Your task to perform on an android device: Open location settings Image 0: 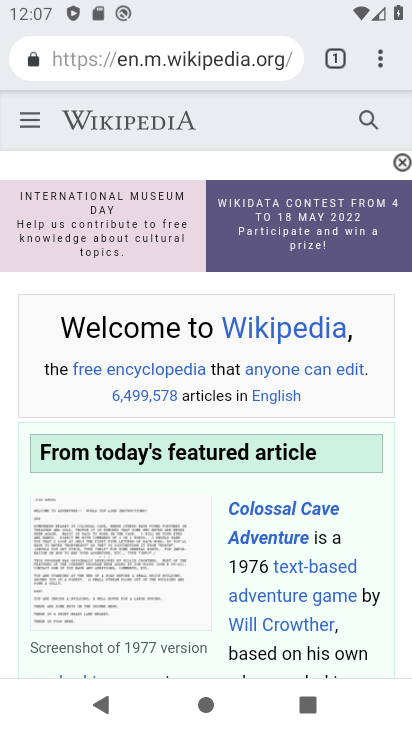
Step 0: press home button
Your task to perform on an android device: Open location settings Image 1: 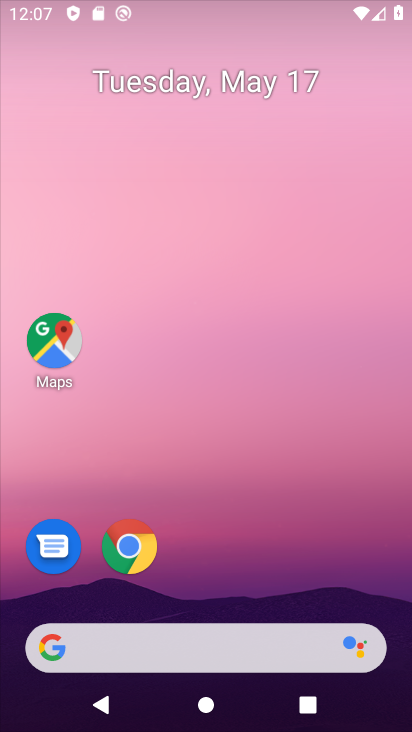
Step 1: drag from (295, 480) to (330, 14)
Your task to perform on an android device: Open location settings Image 2: 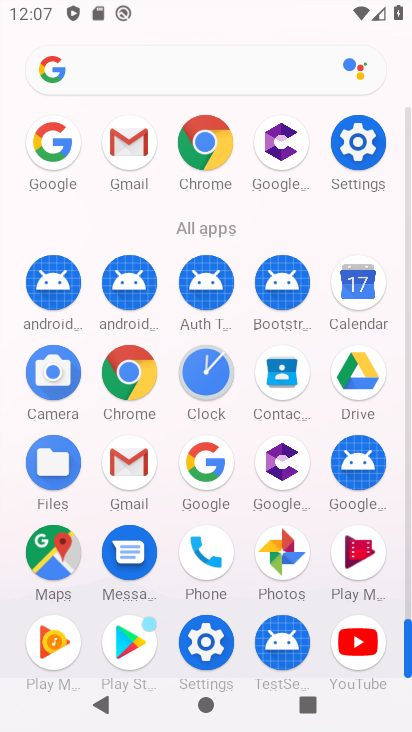
Step 2: click (352, 131)
Your task to perform on an android device: Open location settings Image 3: 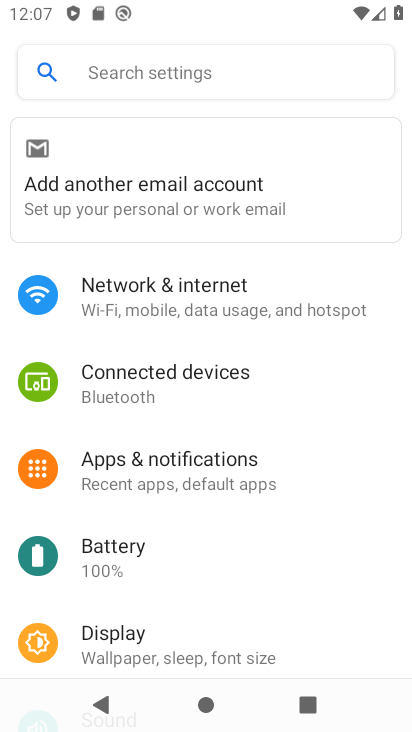
Step 3: drag from (210, 531) to (268, 97)
Your task to perform on an android device: Open location settings Image 4: 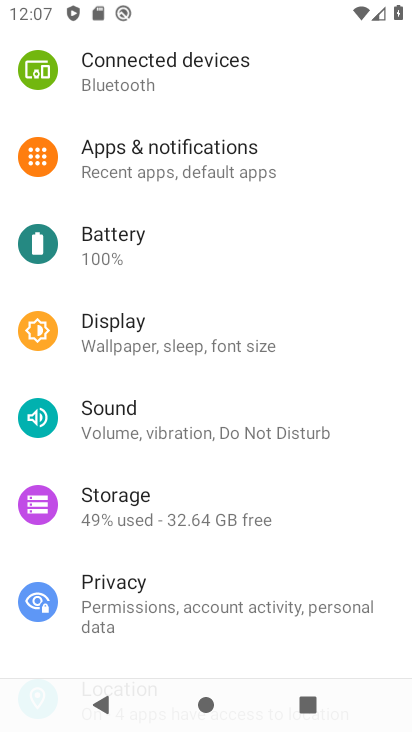
Step 4: drag from (164, 532) to (234, 184)
Your task to perform on an android device: Open location settings Image 5: 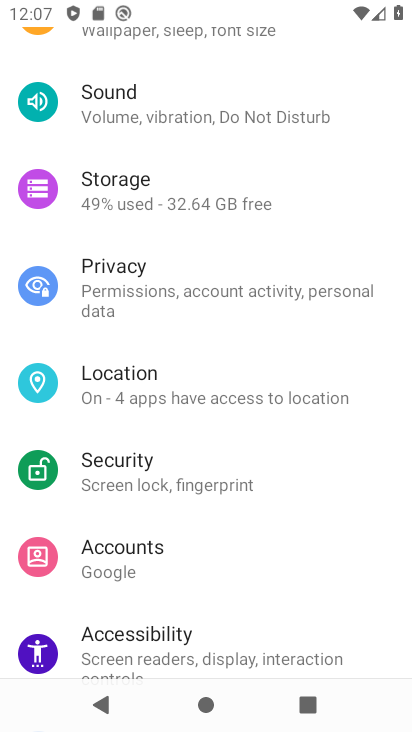
Step 5: click (153, 380)
Your task to perform on an android device: Open location settings Image 6: 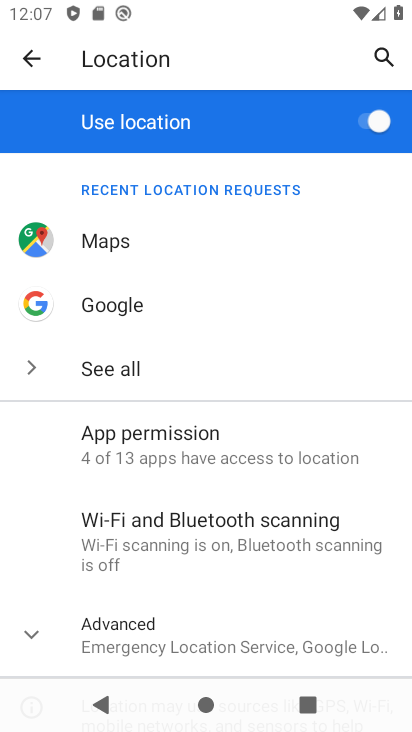
Step 6: task complete